Your task to perform on an android device: see tabs open on other devices in the chrome app Image 0: 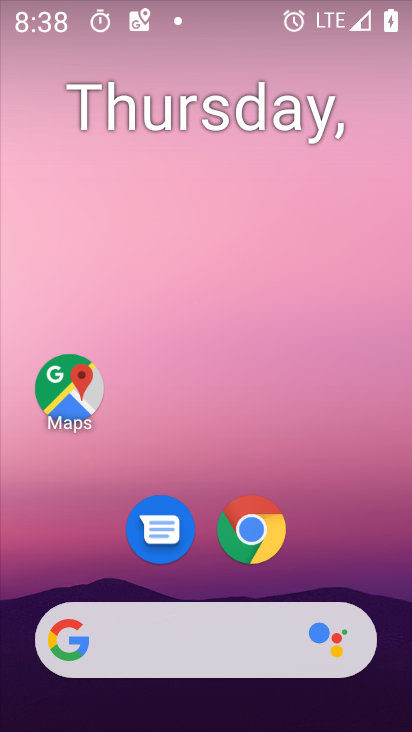
Step 0: drag from (385, 569) to (383, 159)
Your task to perform on an android device: see tabs open on other devices in the chrome app Image 1: 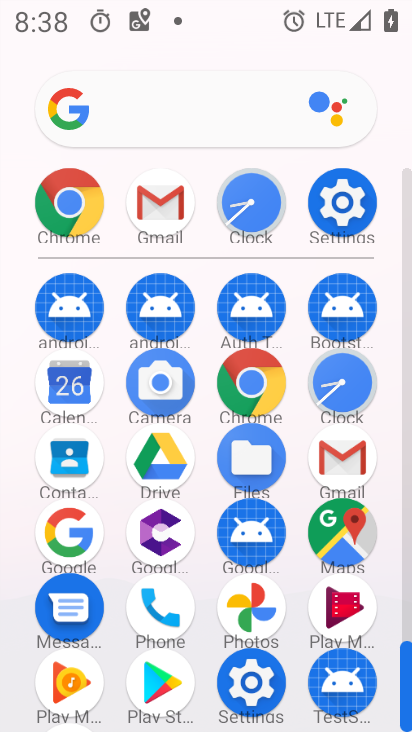
Step 1: click (268, 397)
Your task to perform on an android device: see tabs open on other devices in the chrome app Image 2: 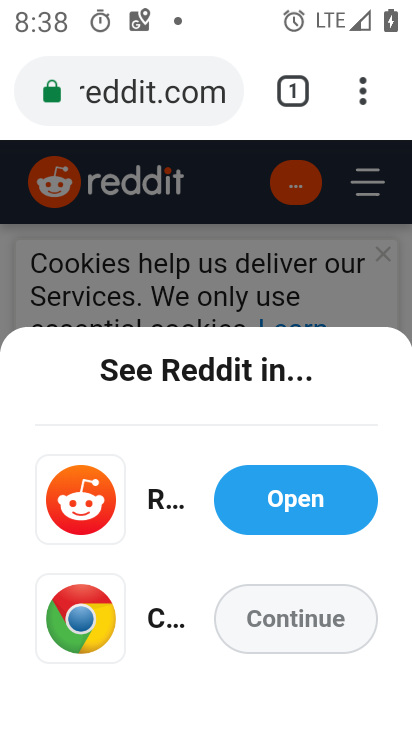
Step 2: click (362, 100)
Your task to perform on an android device: see tabs open on other devices in the chrome app Image 3: 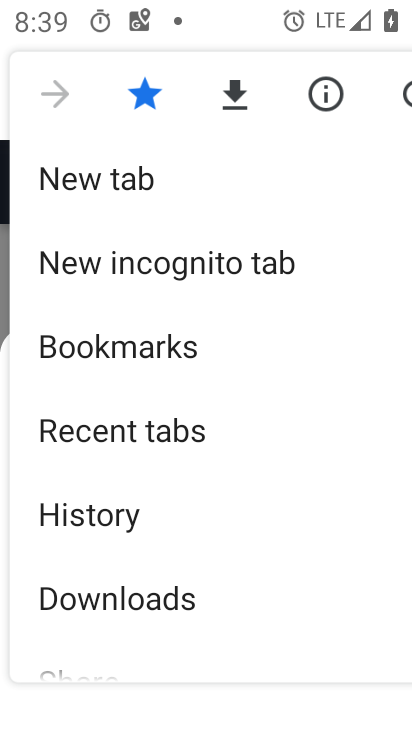
Step 3: click (177, 445)
Your task to perform on an android device: see tabs open on other devices in the chrome app Image 4: 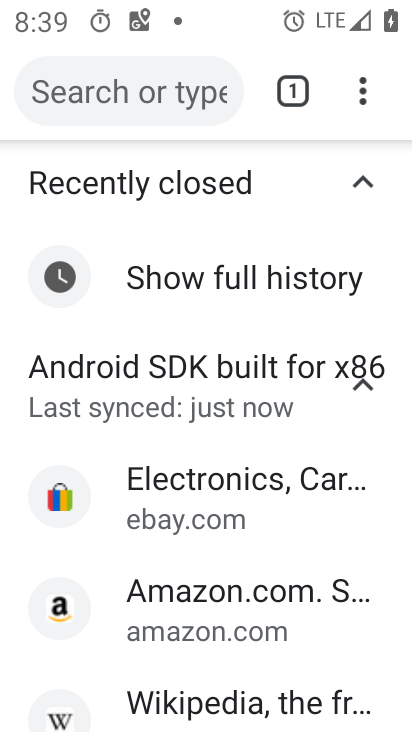
Step 4: click (294, 99)
Your task to perform on an android device: see tabs open on other devices in the chrome app Image 5: 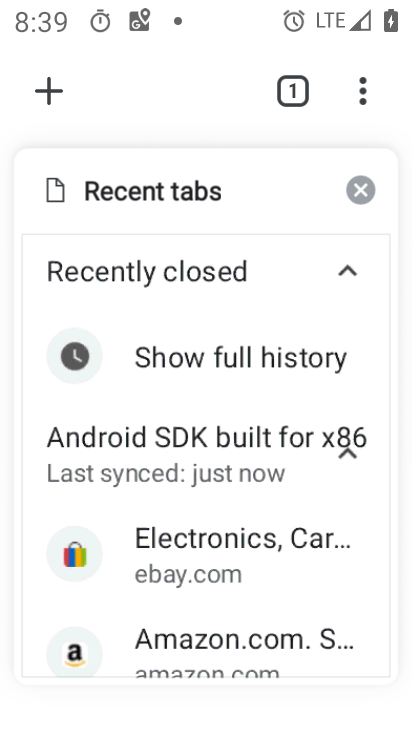
Step 5: task complete